Your task to perform on an android device: Open calendar and show me the first week of next month Image 0: 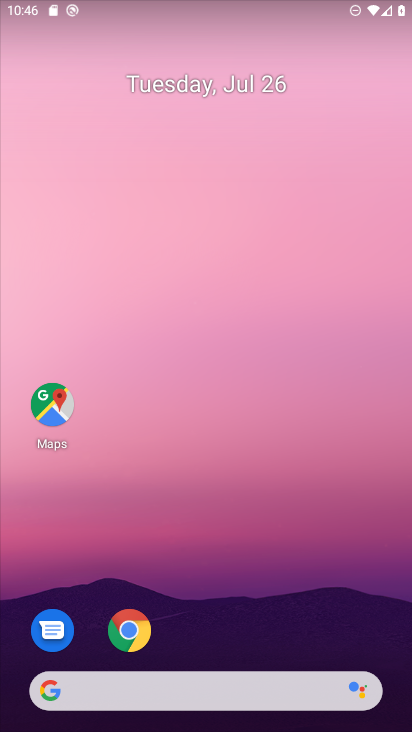
Step 0: drag from (385, 634) to (328, 173)
Your task to perform on an android device: Open calendar and show me the first week of next month Image 1: 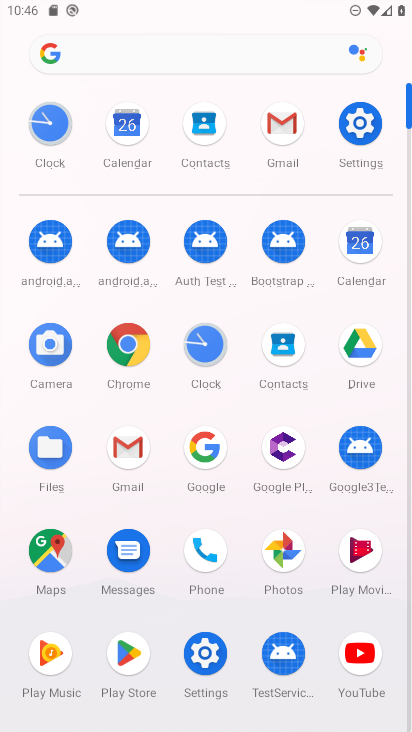
Step 1: click (360, 240)
Your task to perform on an android device: Open calendar and show me the first week of next month Image 2: 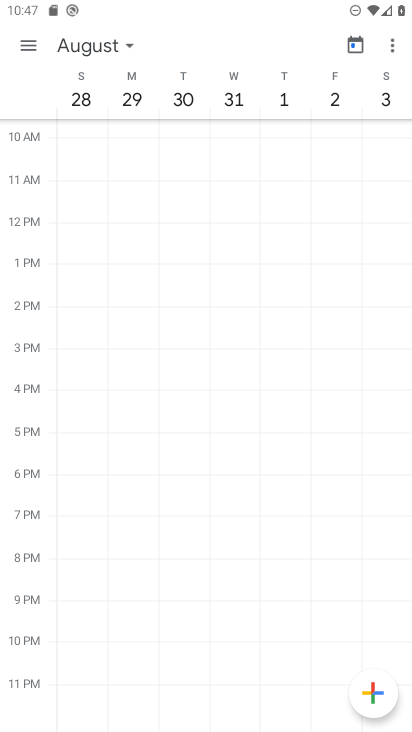
Step 2: click (131, 48)
Your task to perform on an android device: Open calendar and show me the first week of next month Image 3: 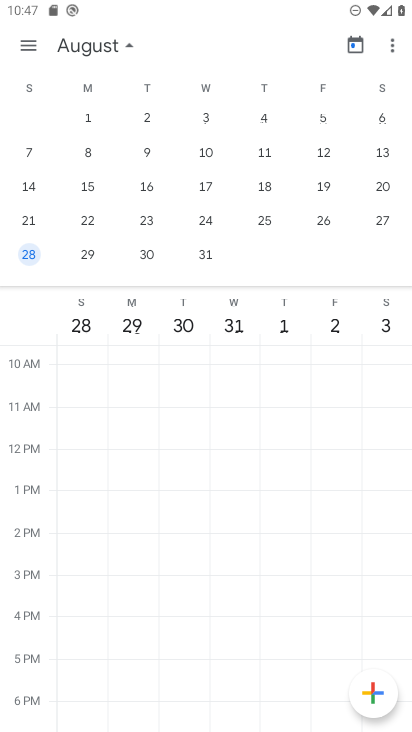
Step 3: click (29, 147)
Your task to perform on an android device: Open calendar and show me the first week of next month Image 4: 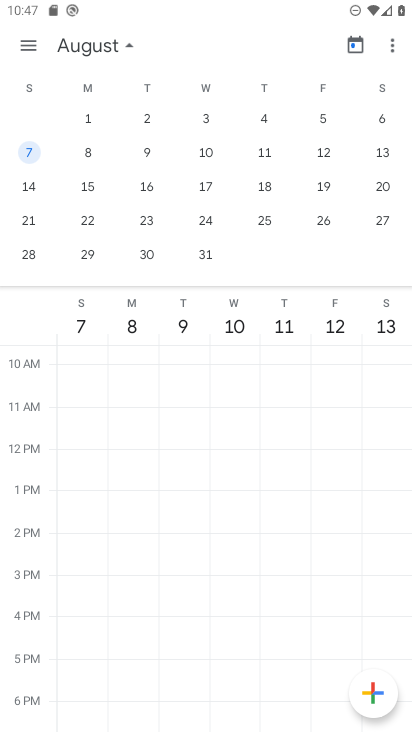
Step 4: task complete